Your task to perform on an android device: Open Chrome and go to settings Image 0: 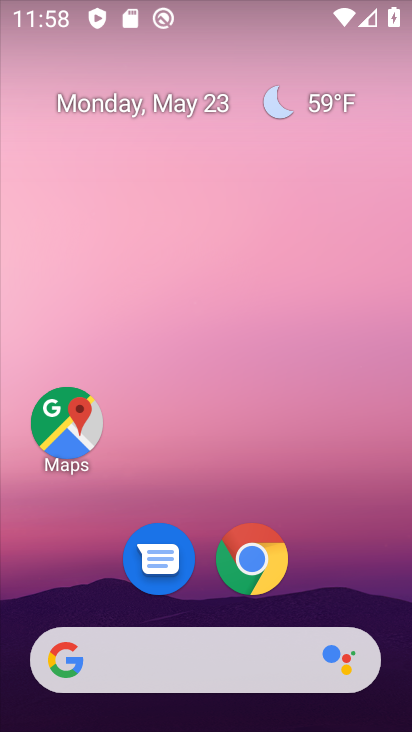
Step 0: click (264, 569)
Your task to perform on an android device: Open Chrome and go to settings Image 1: 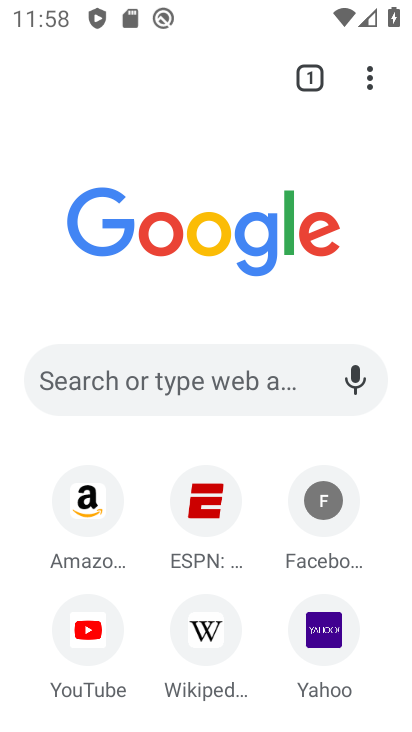
Step 1: click (375, 73)
Your task to perform on an android device: Open Chrome and go to settings Image 2: 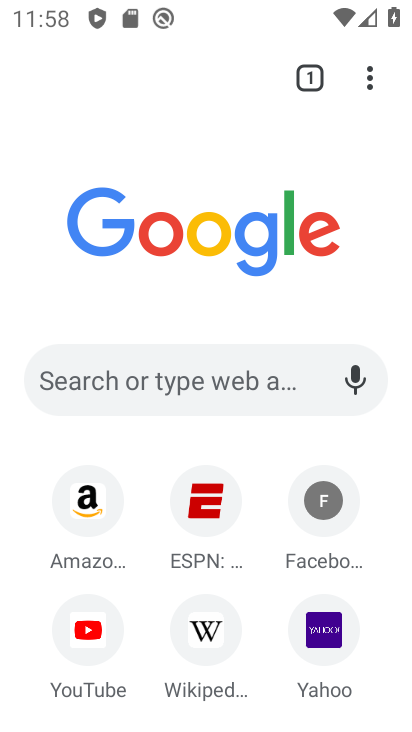
Step 2: click (364, 72)
Your task to perform on an android device: Open Chrome and go to settings Image 3: 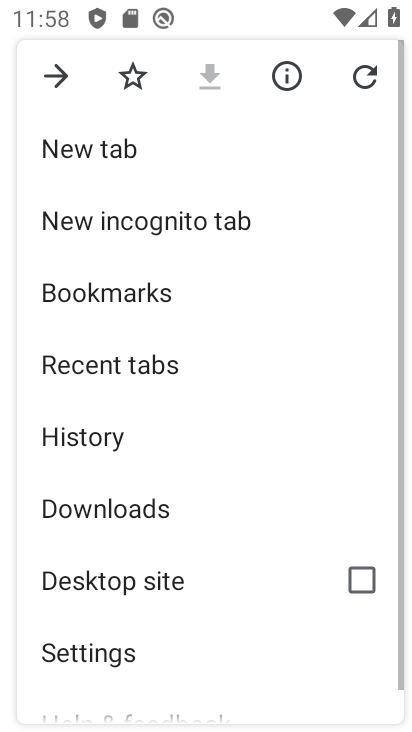
Step 3: click (132, 654)
Your task to perform on an android device: Open Chrome and go to settings Image 4: 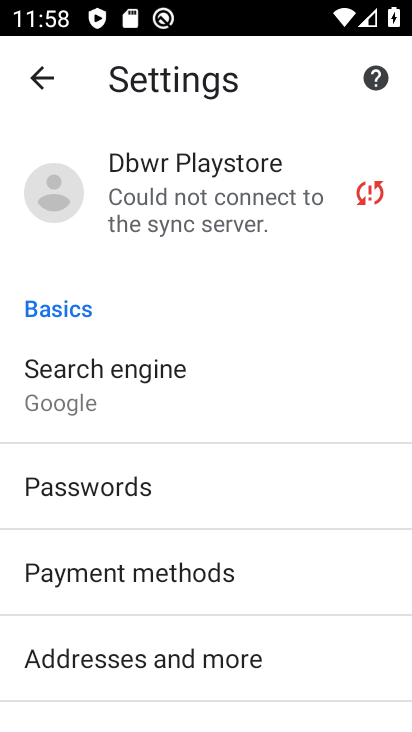
Step 4: task complete